Your task to perform on an android device: toggle improve location accuracy Image 0: 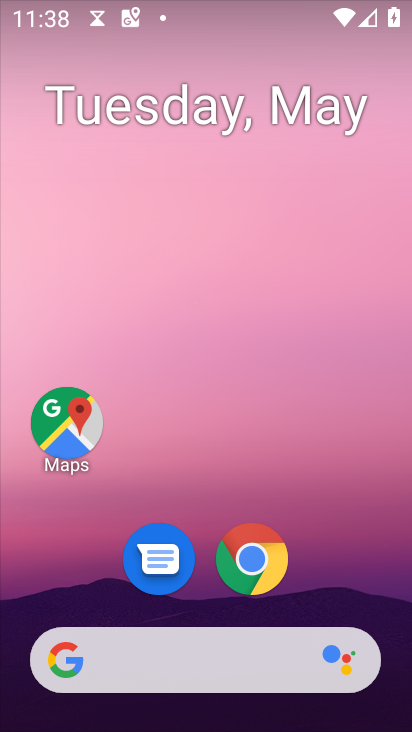
Step 0: drag from (368, 583) to (384, 0)
Your task to perform on an android device: toggle improve location accuracy Image 1: 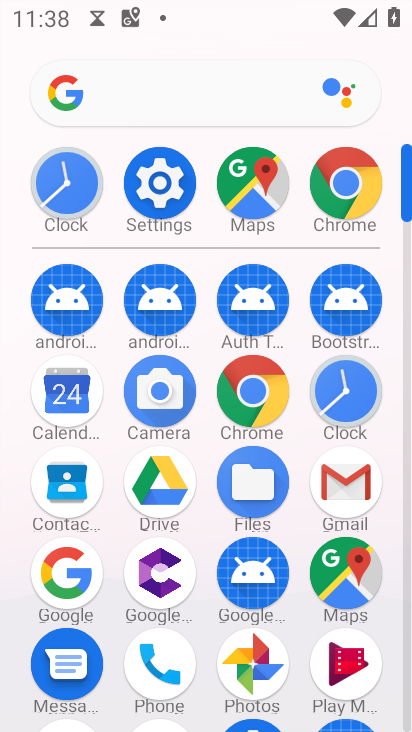
Step 1: click (146, 186)
Your task to perform on an android device: toggle improve location accuracy Image 2: 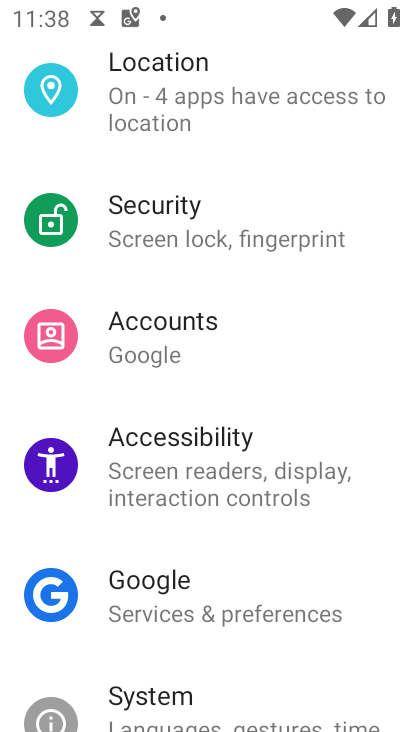
Step 2: drag from (275, 165) to (292, 662)
Your task to perform on an android device: toggle improve location accuracy Image 3: 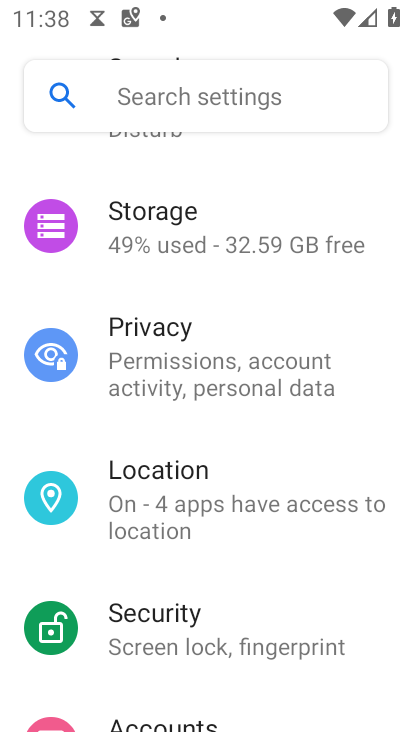
Step 3: drag from (274, 264) to (315, 629)
Your task to perform on an android device: toggle improve location accuracy Image 4: 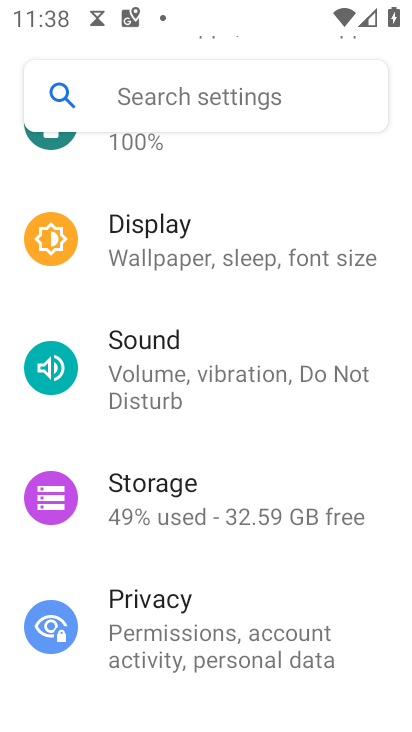
Step 4: drag from (264, 273) to (281, 593)
Your task to perform on an android device: toggle improve location accuracy Image 5: 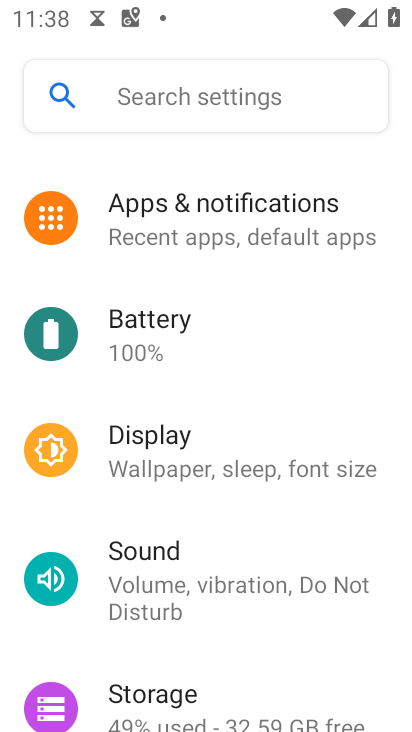
Step 5: drag from (316, 206) to (343, 568)
Your task to perform on an android device: toggle improve location accuracy Image 6: 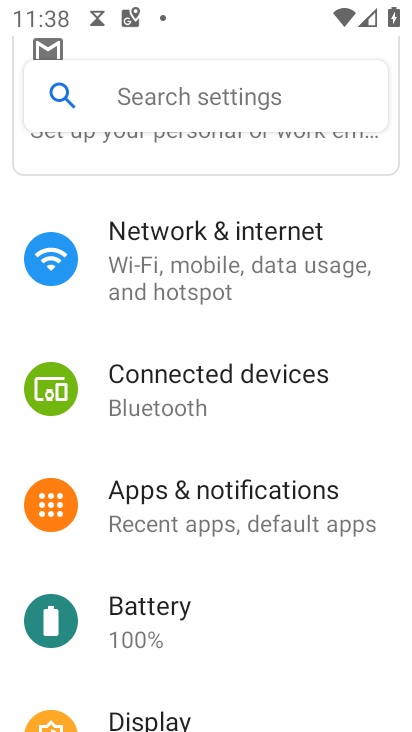
Step 6: drag from (325, 240) to (328, 557)
Your task to perform on an android device: toggle improve location accuracy Image 7: 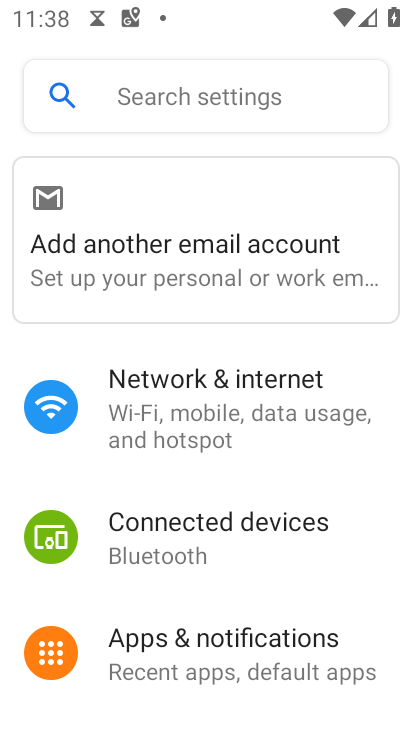
Step 7: drag from (303, 659) to (383, 75)
Your task to perform on an android device: toggle improve location accuracy Image 8: 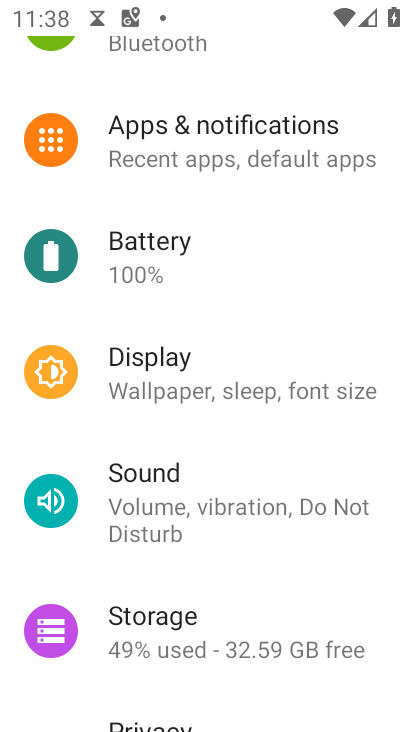
Step 8: drag from (300, 523) to (353, 55)
Your task to perform on an android device: toggle improve location accuracy Image 9: 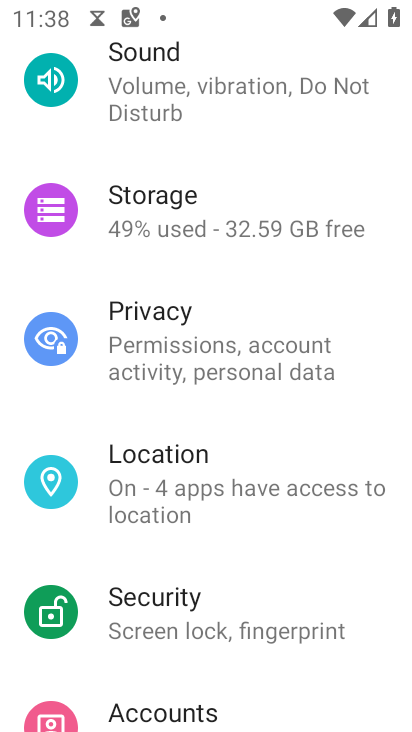
Step 9: click (239, 474)
Your task to perform on an android device: toggle improve location accuracy Image 10: 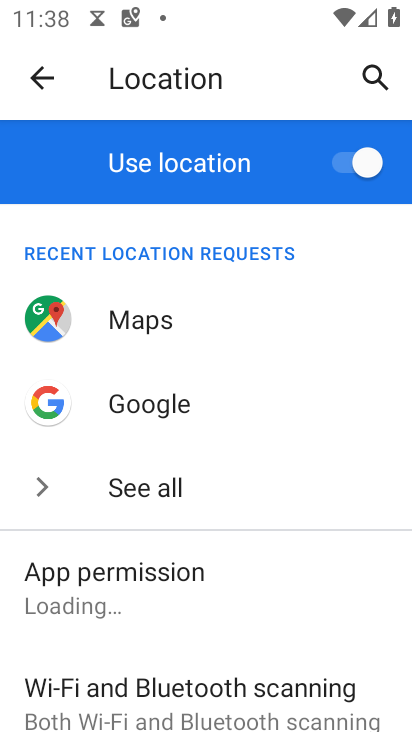
Step 10: drag from (327, 609) to (289, 251)
Your task to perform on an android device: toggle improve location accuracy Image 11: 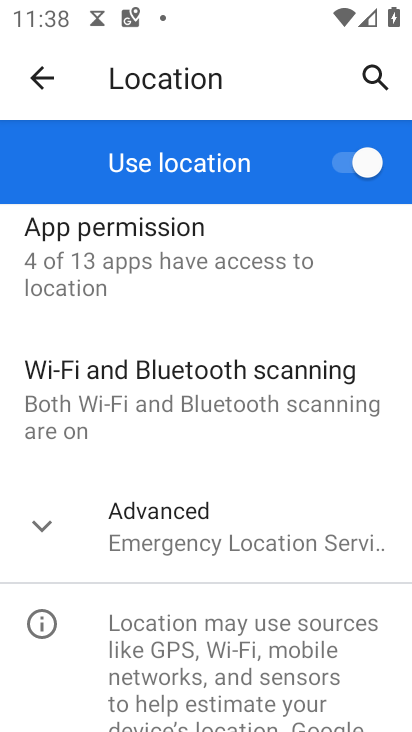
Step 11: drag from (333, 594) to (358, 114)
Your task to perform on an android device: toggle improve location accuracy Image 12: 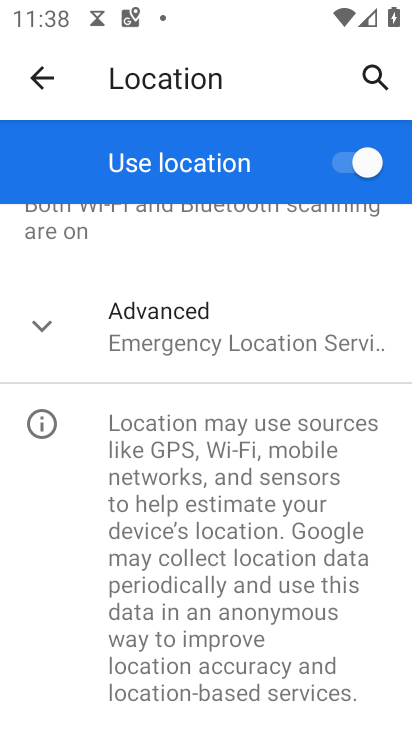
Step 12: click (201, 324)
Your task to perform on an android device: toggle improve location accuracy Image 13: 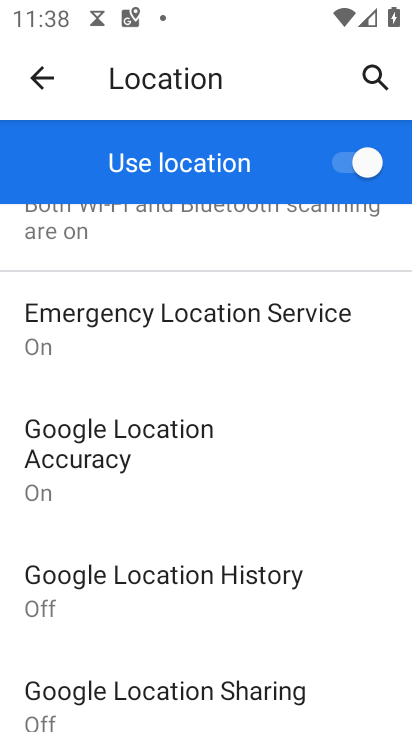
Step 13: click (83, 456)
Your task to perform on an android device: toggle improve location accuracy Image 14: 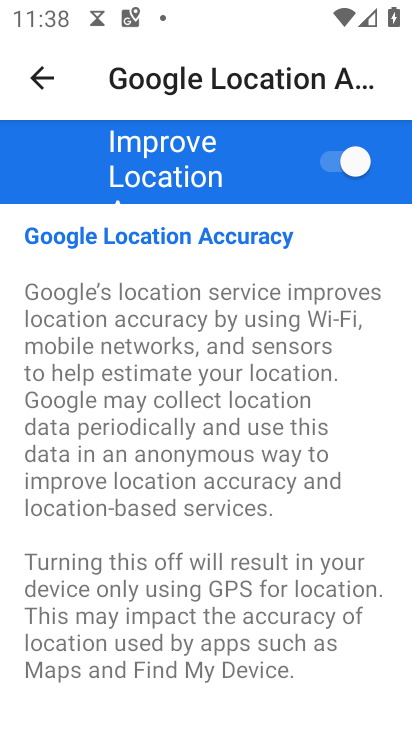
Step 14: click (326, 173)
Your task to perform on an android device: toggle improve location accuracy Image 15: 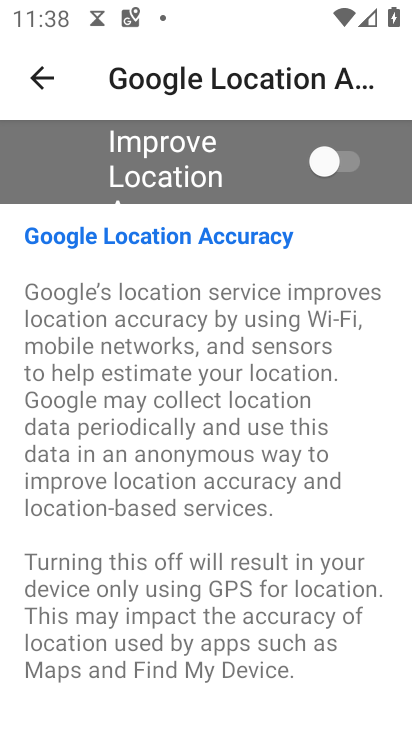
Step 15: task complete